Your task to perform on an android device: change the upload size in google photos Image 0: 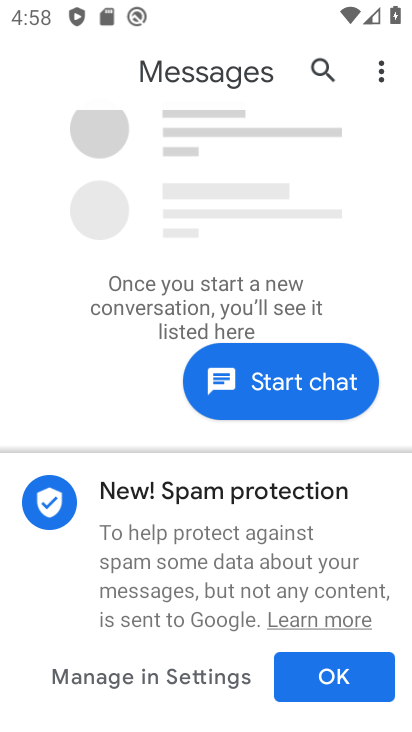
Step 0: press home button
Your task to perform on an android device: change the upload size in google photos Image 1: 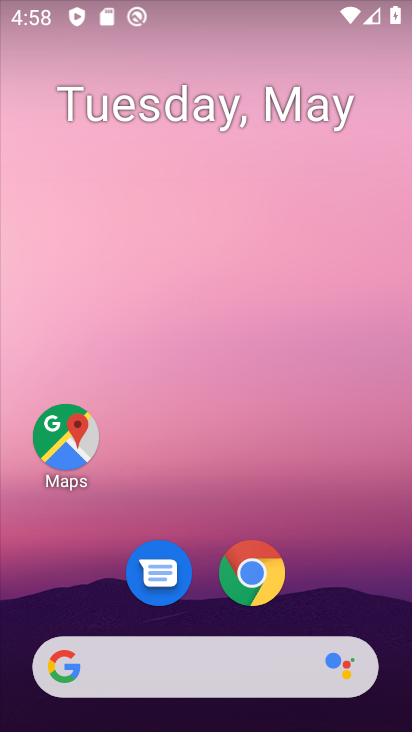
Step 1: drag from (148, 636) to (219, 68)
Your task to perform on an android device: change the upload size in google photos Image 2: 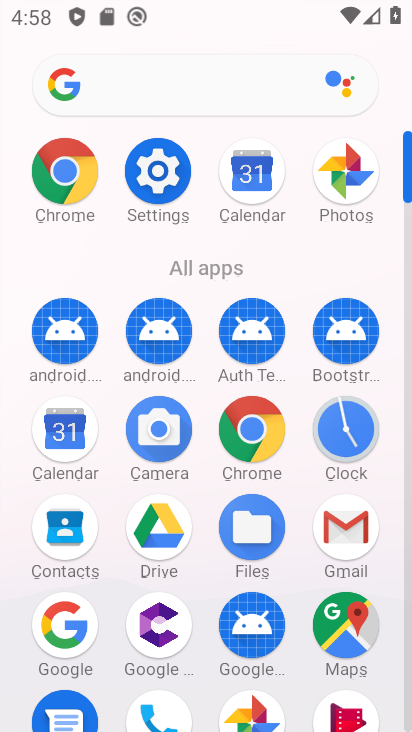
Step 2: click (246, 706)
Your task to perform on an android device: change the upload size in google photos Image 3: 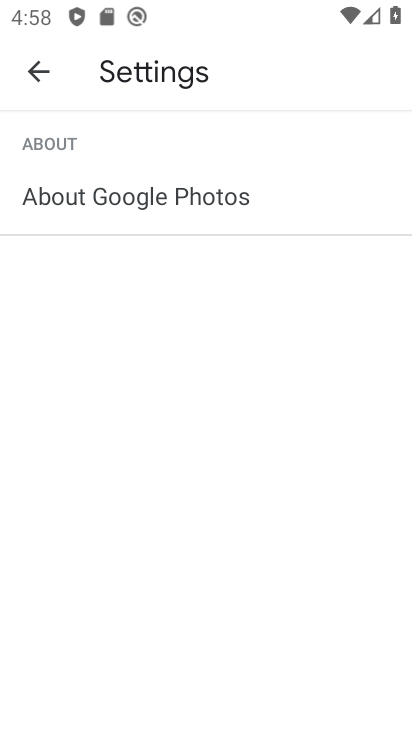
Step 3: click (40, 62)
Your task to perform on an android device: change the upload size in google photos Image 4: 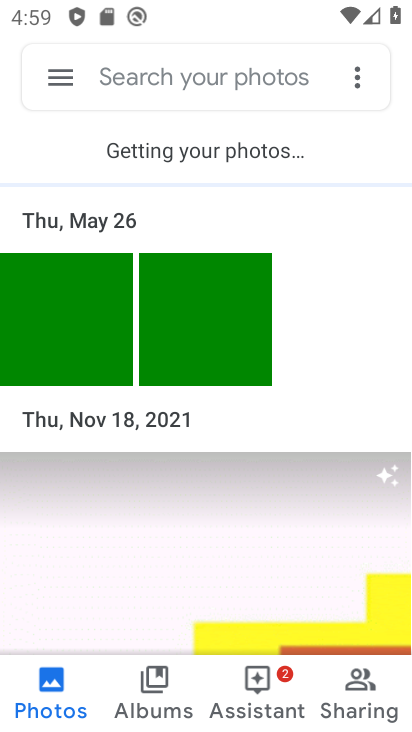
Step 4: click (63, 80)
Your task to perform on an android device: change the upload size in google photos Image 5: 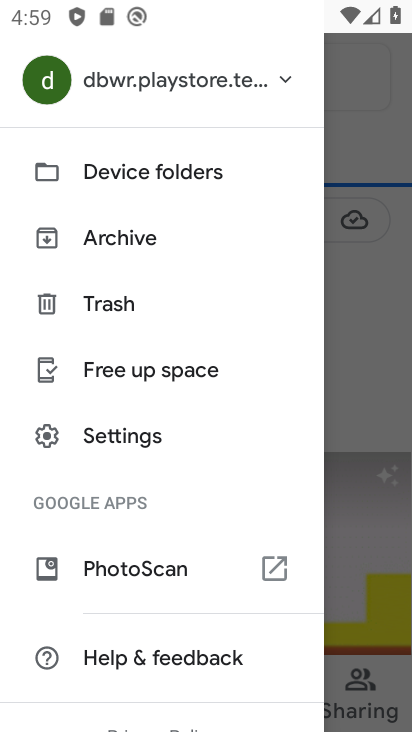
Step 5: click (112, 428)
Your task to perform on an android device: change the upload size in google photos Image 6: 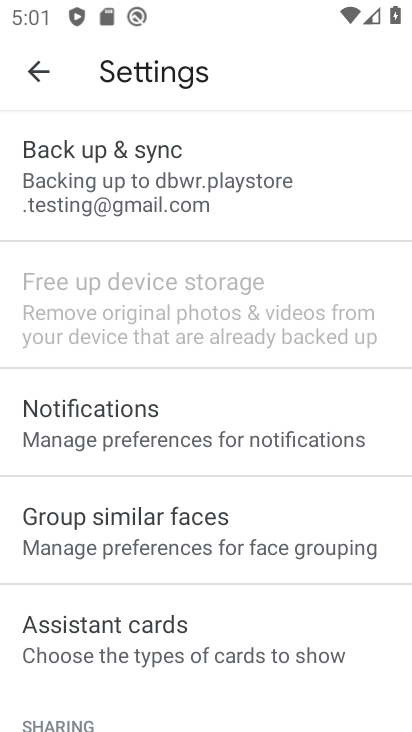
Step 6: drag from (171, 617) to (216, 214)
Your task to perform on an android device: change the upload size in google photos Image 7: 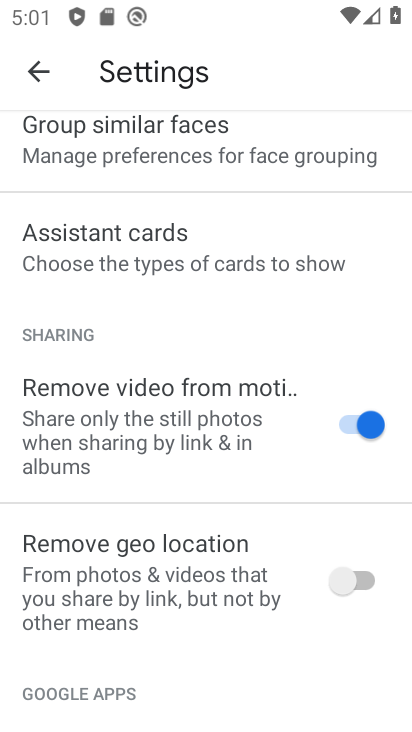
Step 7: drag from (199, 243) to (186, 662)
Your task to perform on an android device: change the upload size in google photos Image 8: 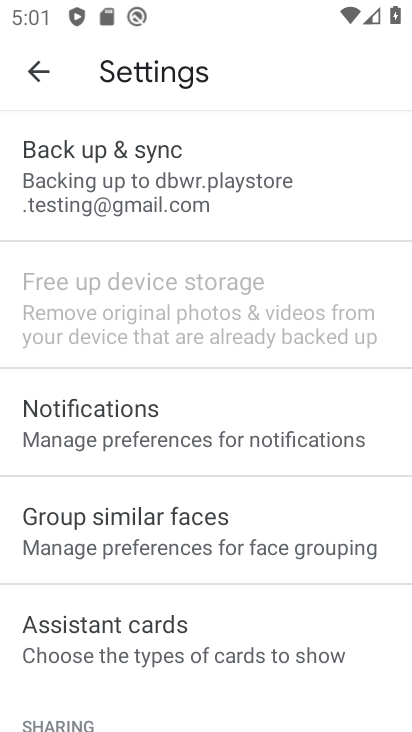
Step 8: drag from (218, 216) to (259, 129)
Your task to perform on an android device: change the upload size in google photos Image 9: 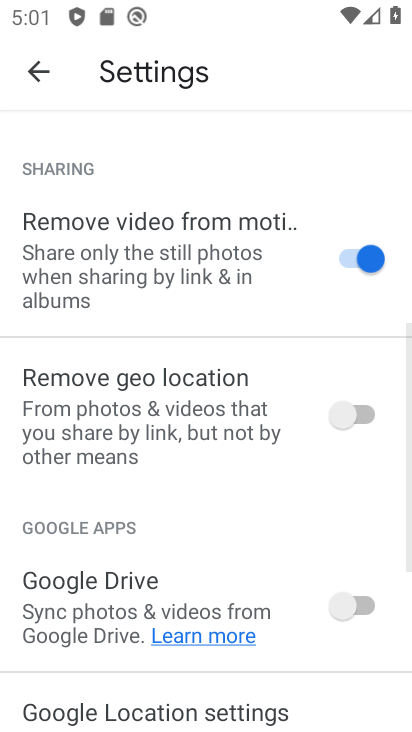
Step 9: drag from (180, 681) to (190, 184)
Your task to perform on an android device: change the upload size in google photos Image 10: 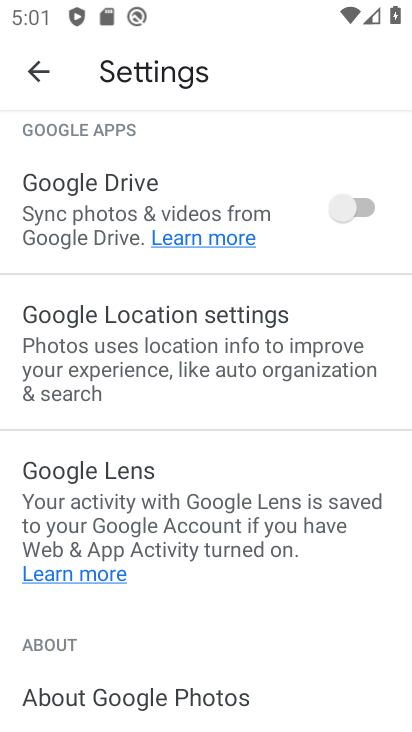
Step 10: drag from (179, 598) to (220, 145)
Your task to perform on an android device: change the upload size in google photos Image 11: 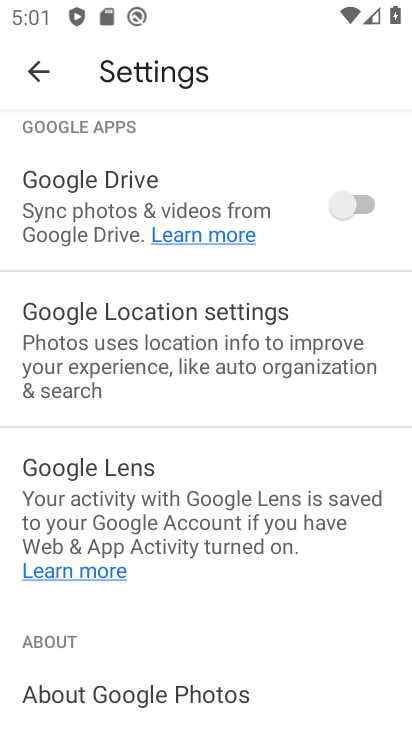
Step 11: drag from (182, 230) to (182, 702)
Your task to perform on an android device: change the upload size in google photos Image 12: 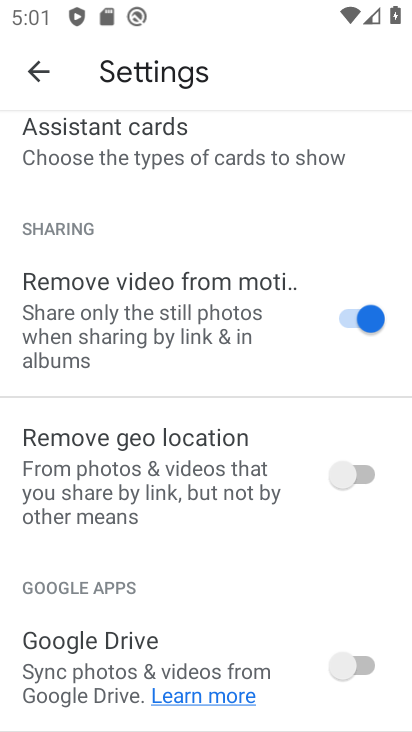
Step 12: drag from (135, 237) to (136, 697)
Your task to perform on an android device: change the upload size in google photos Image 13: 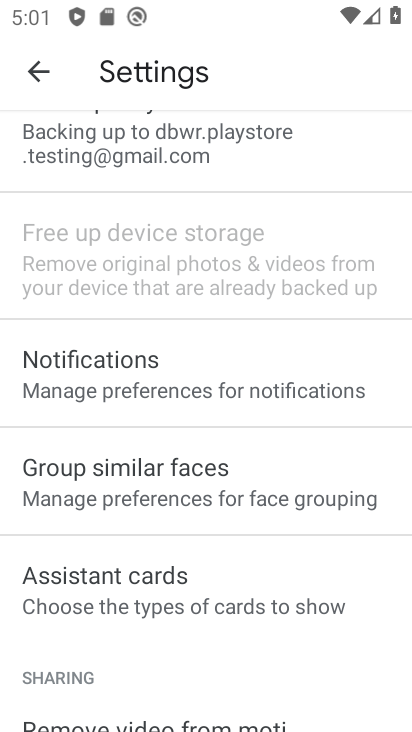
Step 13: drag from (221, 231) to (222, 657)
Your task to perform on an android device: change the upload size in google photos Image 14: 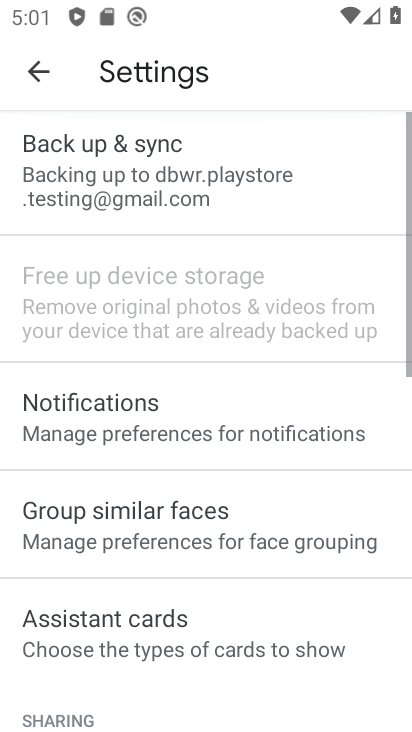
Step 14: click (186, 174)
Your task to perform on an android device: change the upload size in google photos Image 15: 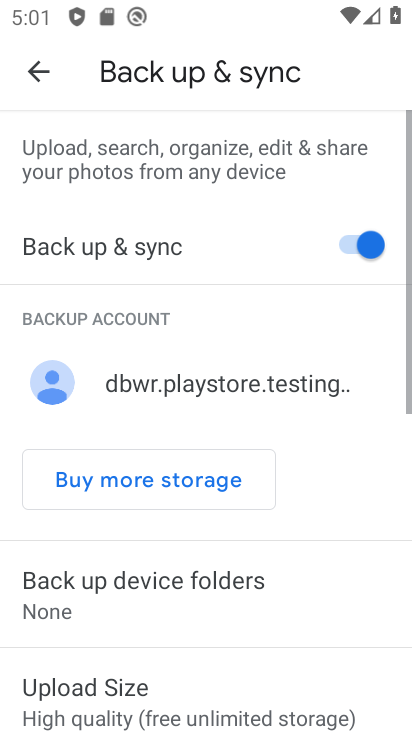
Step 15: click (145, 709)
Your task to perform on an android device: change the upload size in google photos Image 16: 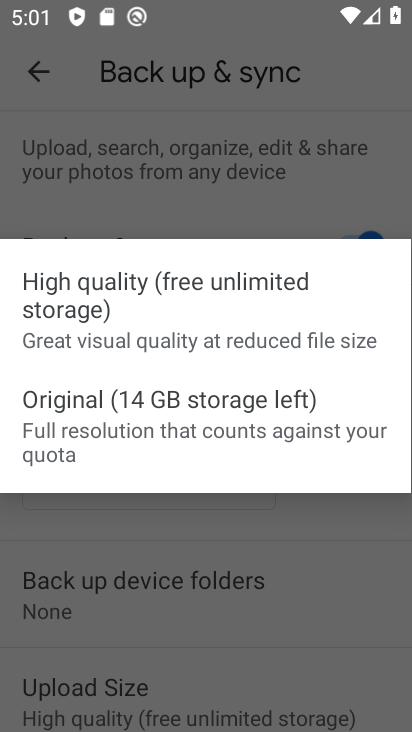
Step 16: click (106, 413)
Your task to perform on an android device: change the upload size in google photos Image 17: 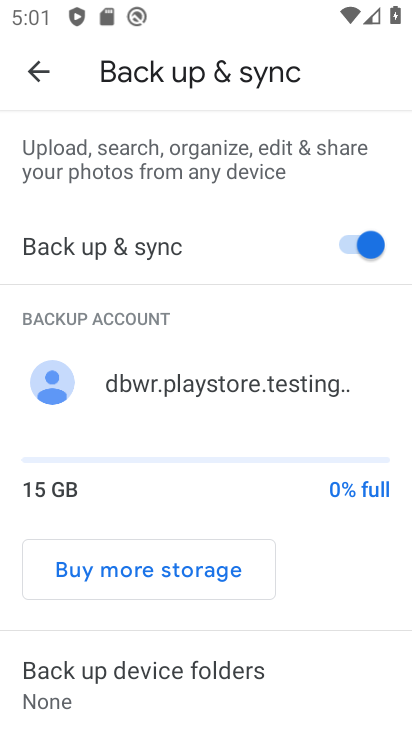
Step 17: task complete